Your task to perform on an android device: Open the phone app and click the voicemail tab. Image 0: 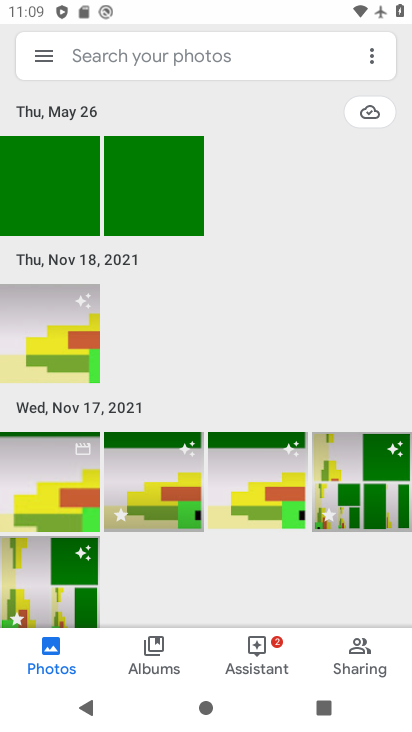
Step 0: press home button
Your task to perform on an android device: Open the phone app and click the voicemail tab. Image 1: 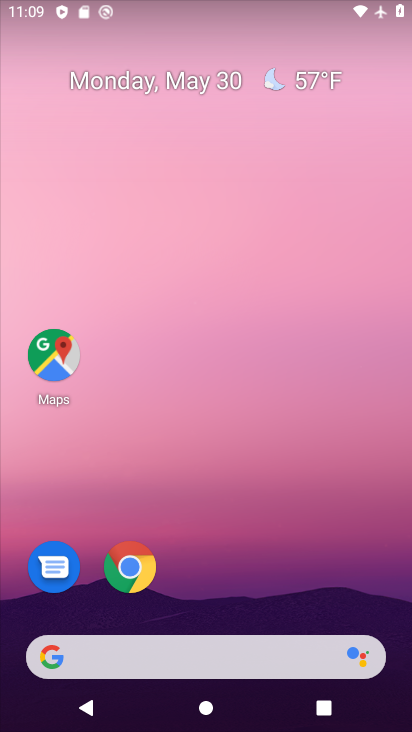
Step 1: drag from (227, 618) to (267, 157)
Your task to perform on an android device: Open the phone app and click the voicemail tab. Image 2: 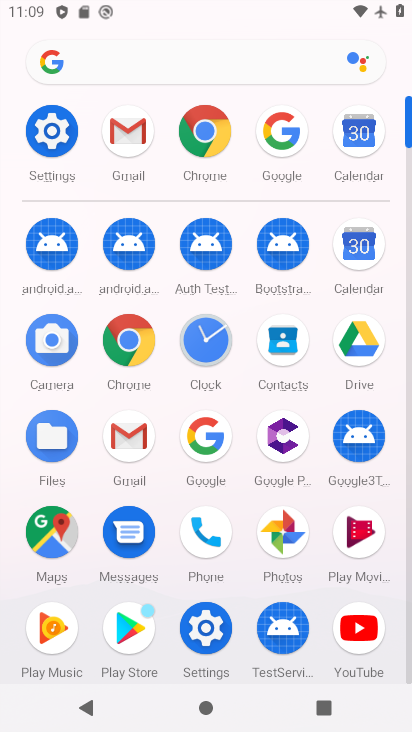
Step 2: click (203, 510)
Your task to perform on an android device: Open the phone app and click the voicemail tab. Image 3: 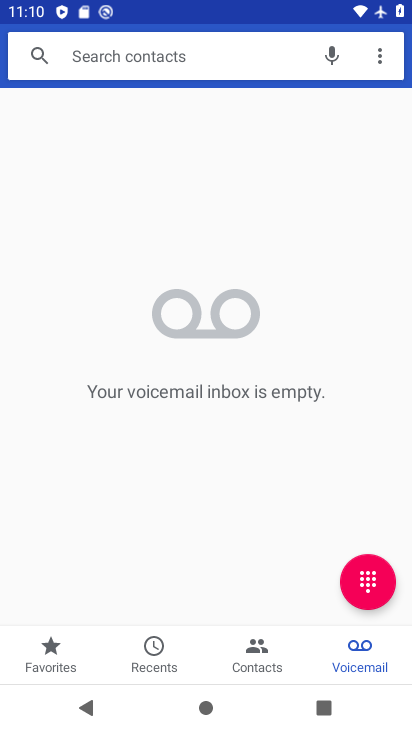
Step 3: click (336, 649)
Your task to perform on an android device: Open the phone app and click the voicemail tab. Image 4: 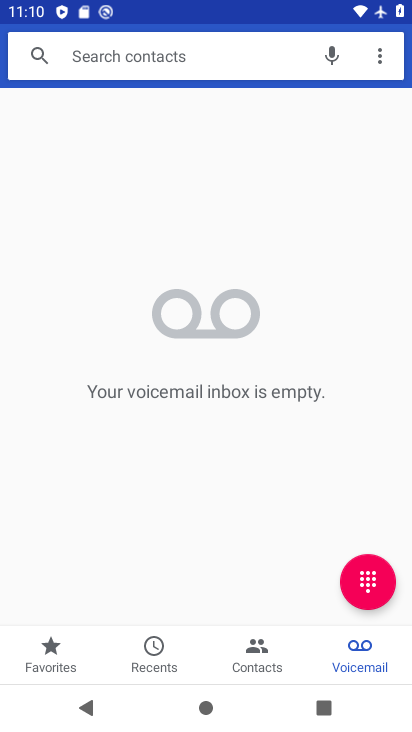
Step 4: task complete